Your task to perform on an android device: Open Google Chrome and open the bookmarks view Image 0: 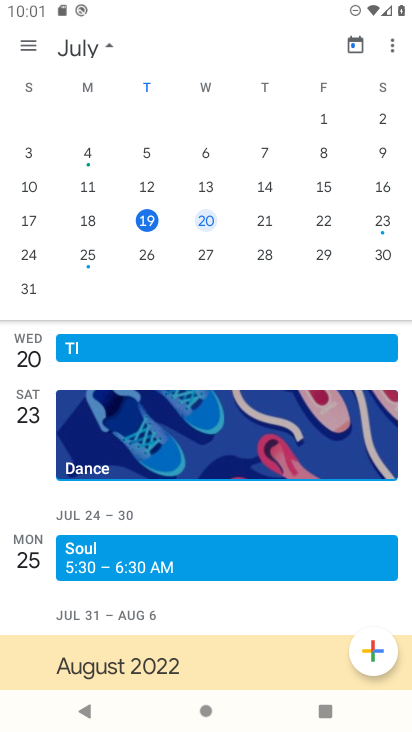
Step 0: press back button
Your task to perform on an android device: Open Google Chrome and open the bookmarks view Image 1: 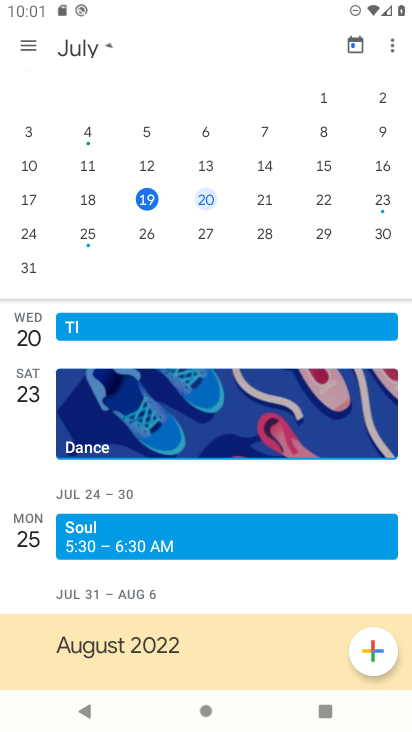
Step 1: press back button
Your task to perform on an android device: Open Google Chrome and open the bookmarks view Image 2: 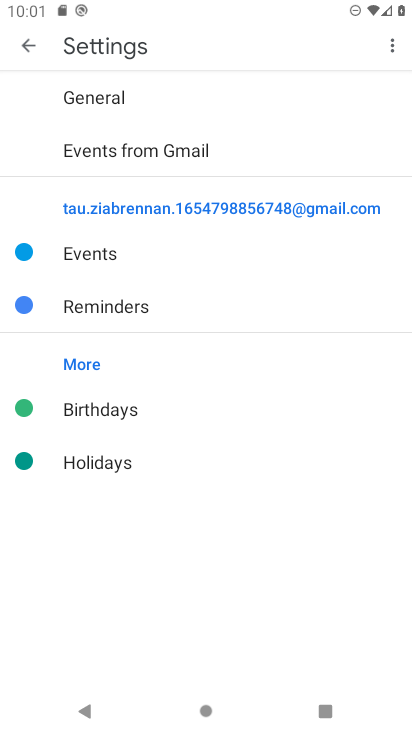
Step 2: press home button
Your task to perform on an android device: Open Google Chrome and open the bookmarks view Image 3: 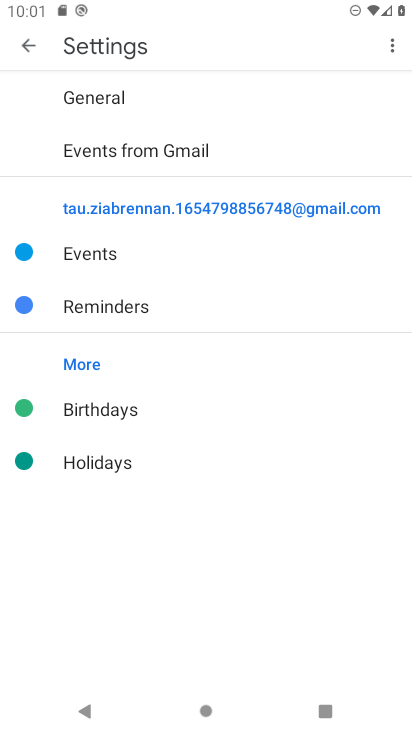
Step 3: press home button
Your task to perform on an android device: Open Google Chrome and open the bookmarks view Image 4: 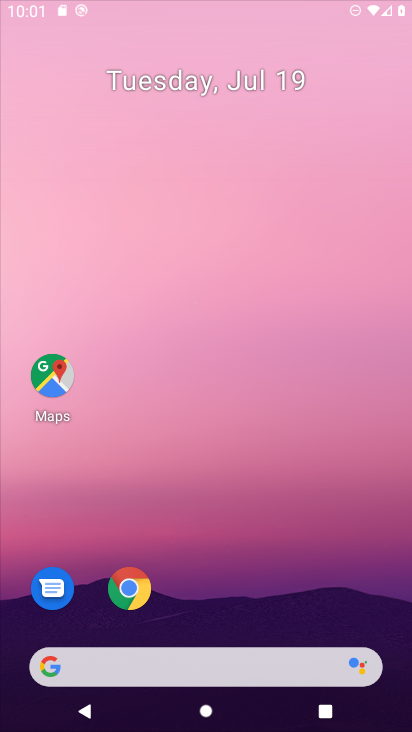
Step 4: press home button
Your task to perform on an android device: Open Google Chrome and open the bookmarks view Image 5: 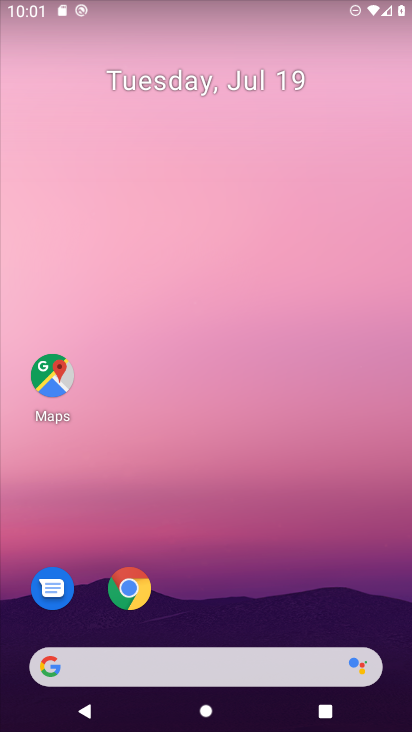
Step 5: drag from (292, 604) to (231, 163)
Your task to perform on an android device: Open Google Chrome and open the bookmarks view Image 6: 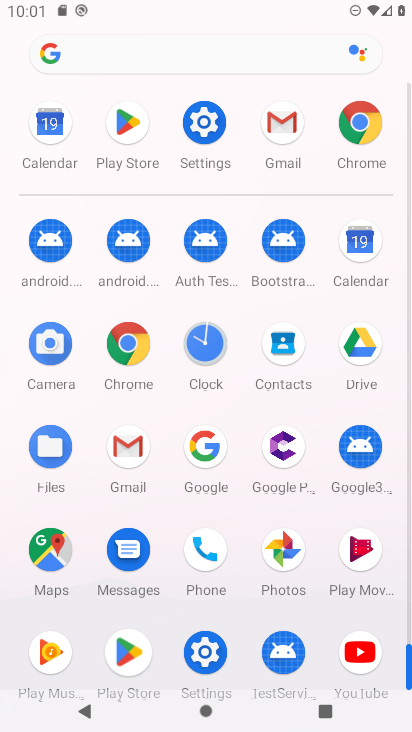
Step 6: click (363, 116)
Your task to perform on an android device: Open Google Chrome and open the bookmarks view Image 7: 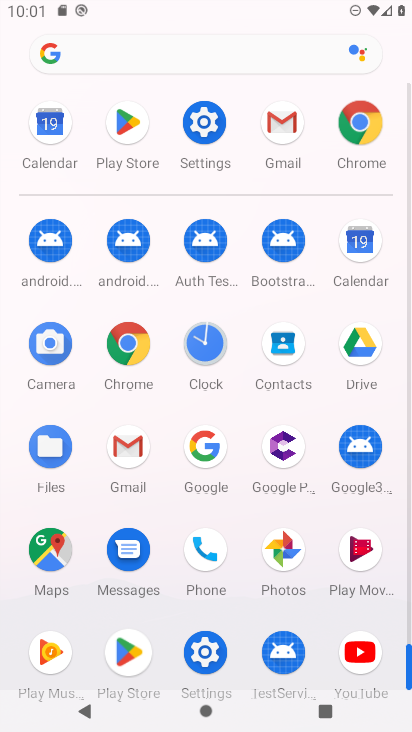
Step 7: click (363, 116)
Your task to perform on an android device: Open Google Chrome and open the bookmarks view Image 8: 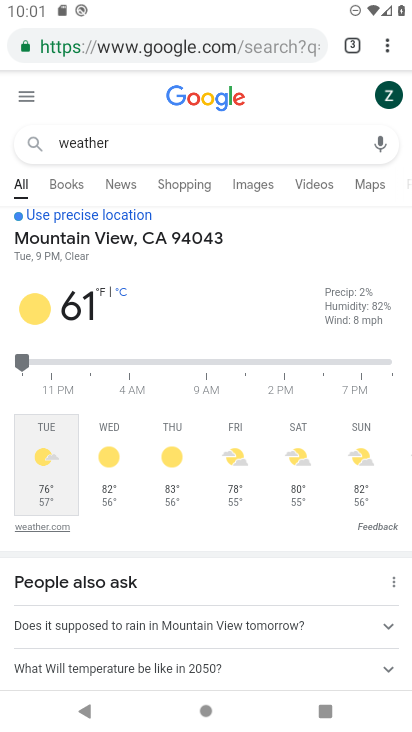
Step 8: drag from (376, 52) to (195, 353)
Your task to perform on an android device: Open Google Chrome and open the bookmarks view Image 9: 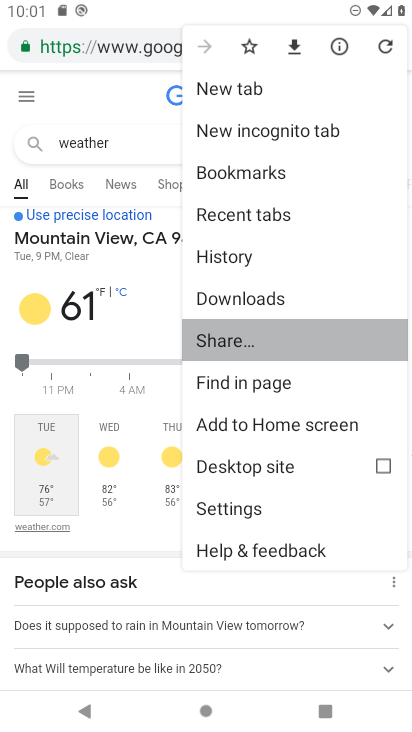
Step 9: click (195, 353)
Your task to perform on an android device: Open Google Chrome and open the bookmarks view Image 10: 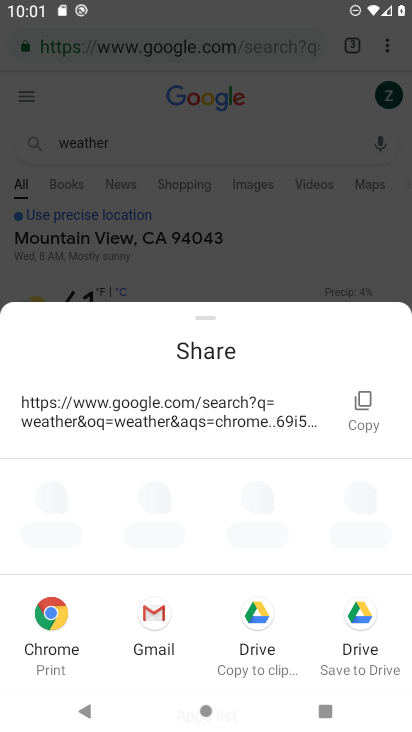
Step 10: click (383, 48)
Your task to perform on an android device: Open Google Chrome and open the bookmarks view Image 11: 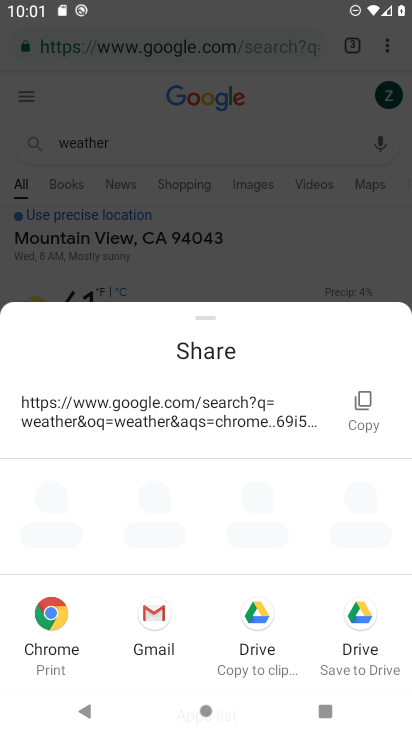
Step 11: click (384, 49)
Your task to perform on an android device: Open Google Chrome and open the bookmarks view Image 12: 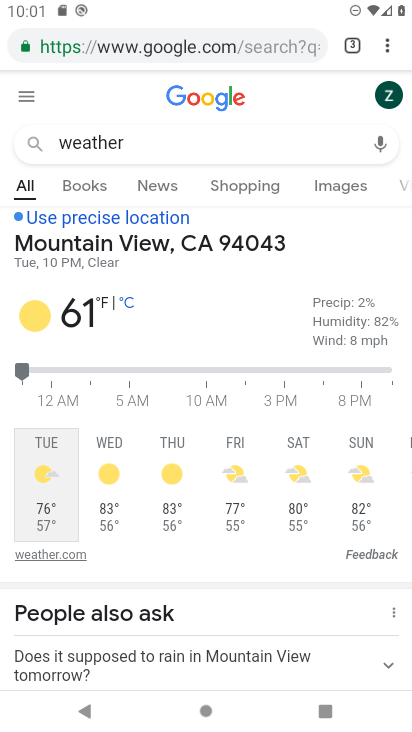
Step 12: drag from (391, 52) to (240, 172)
Your task to perform on an android device: Open Google Chrome and open the bookmarks view Image 13: 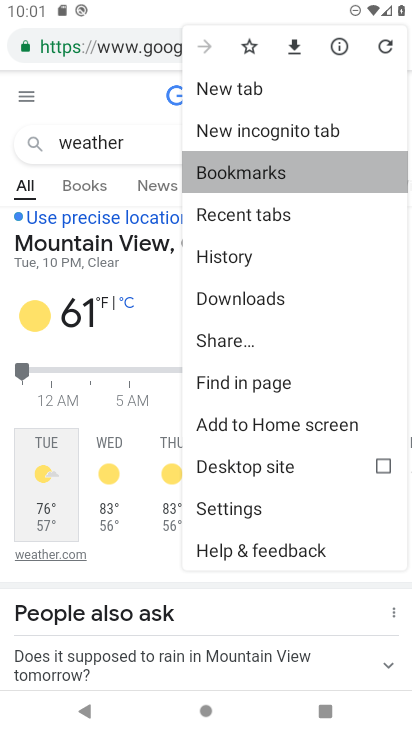
Step 13: click (249, 172)
Your task to perform on an android device: Open Google Chrome and open the bookmarks view Image 14: 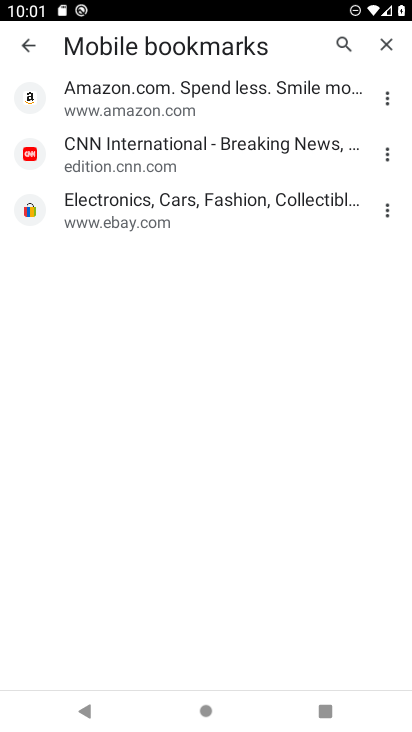
Step 14: task complete